Your task to perform on an android device: turn off airplane mode Image 0: 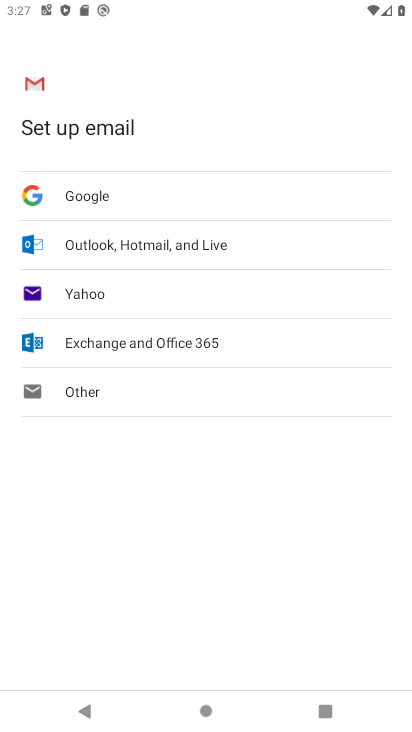
Step 0: press home button
Your task to perform on an android device: turn off airplane mode Image 1: 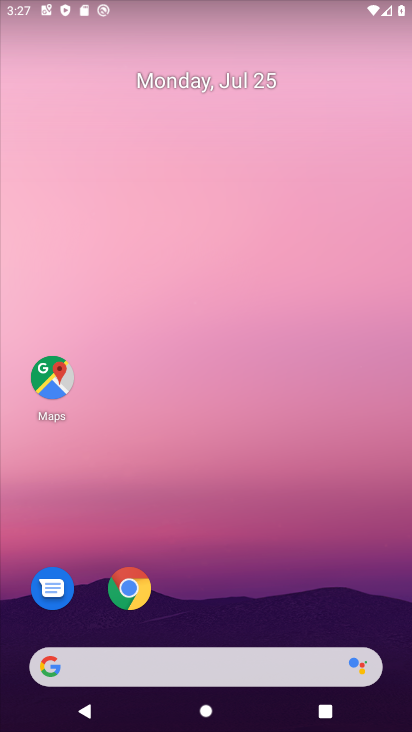
Step 1: drag from (230, 593) to (207, 29)
Your task to perform on an android device: turn off airplane mode Image 2: 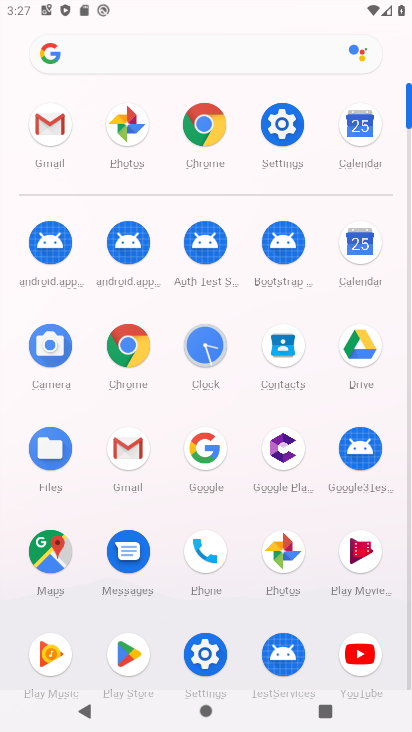
Step 2: click (270, 138)
Your task to perform on an android device: turn off airplane mode Image 3: 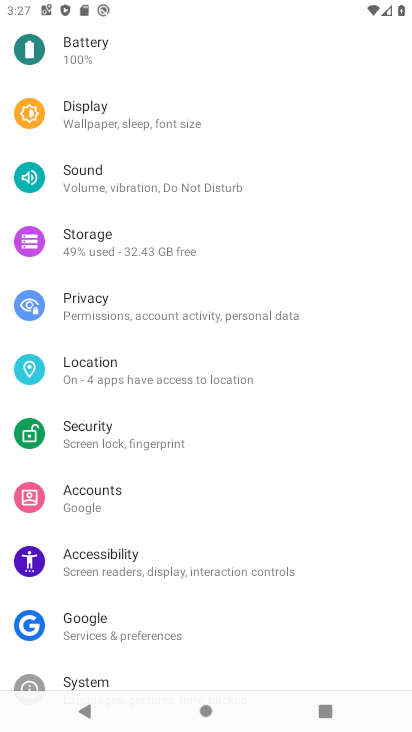
Step 3: drag from (156, 170) to (219, 455)
Your task to perform on an android device: turn off airplane mode Image 4: 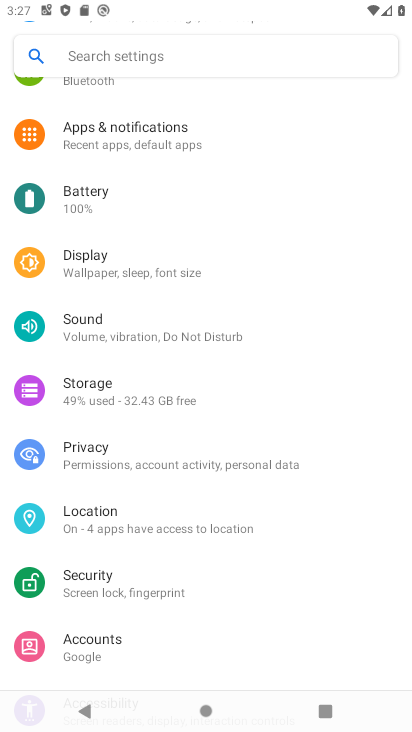
Step 4: drag from (194, 161) to (210, 483)
Your task to perform on an android device: turn off airplane mode Image 5: 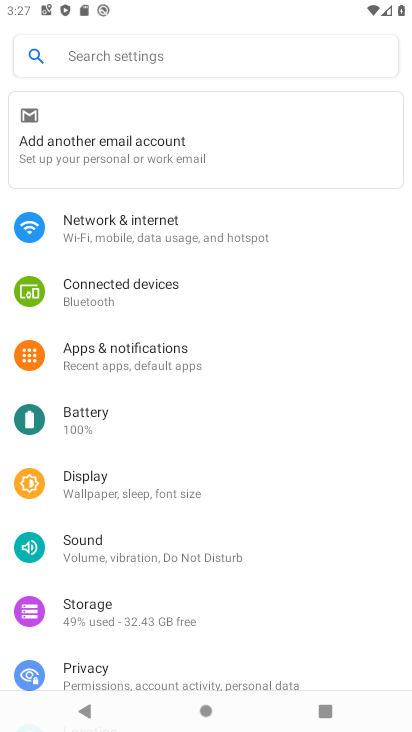
Step 5: click (140, 235)
Your task to perform on an android device: turn off airplane mode Image 6: 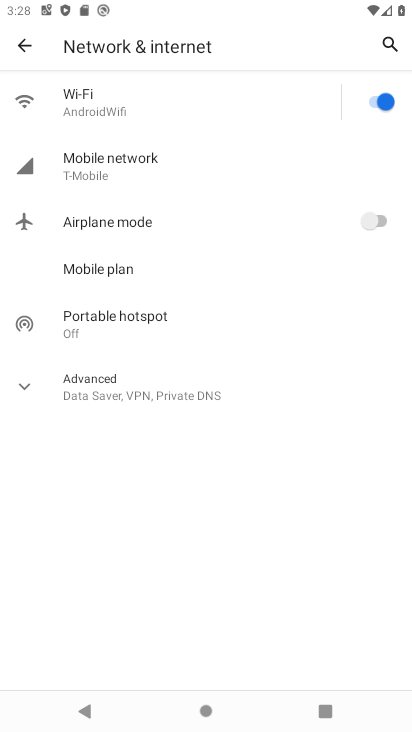
Step 6: task complete